Your task to perform on an android device: Open Yahoo.com Image 0: 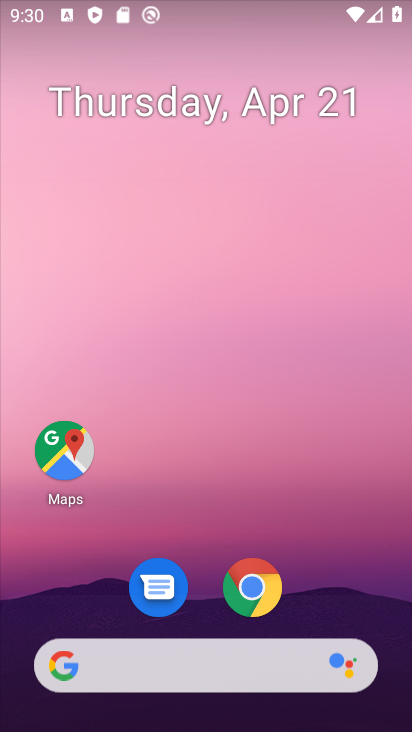
Step 0: click (250, 587)
Your task to perform on an android device: Open Yahoo.com Image 1: 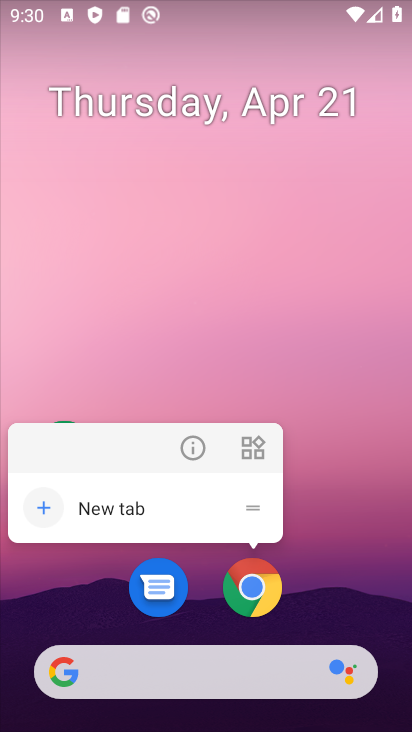
Step 1: click (188, 452)
Your task to perform on an android device: Open Yahoo.com Image 2: 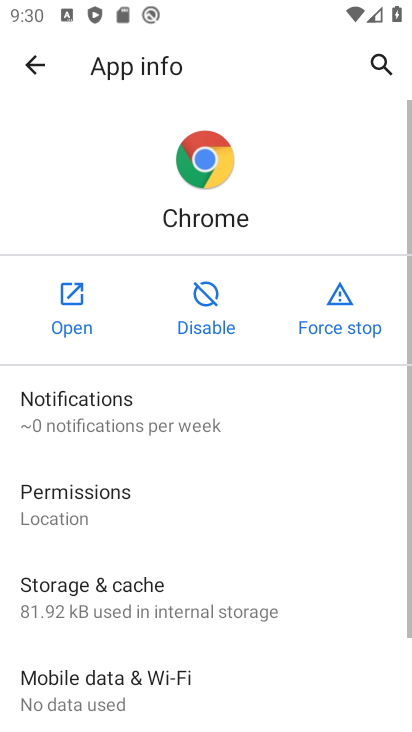
Step 2: click (72, 296)
Your task to perform on an android device: Open Yahoo.com Image 3: 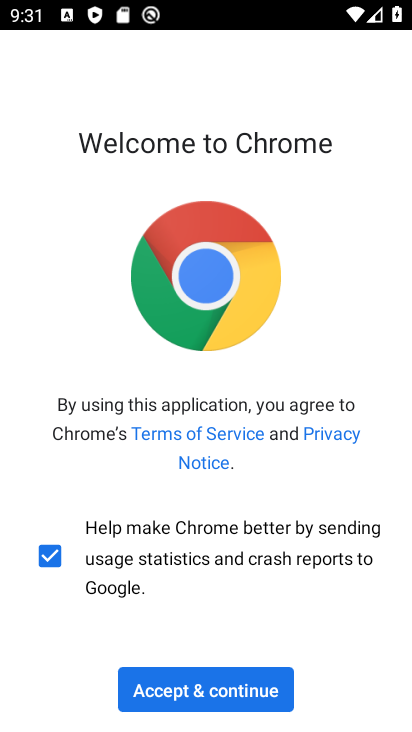
Step 3: click (167, 684)
Your task to perform on an android device: Open Yahoo.com Image 4: 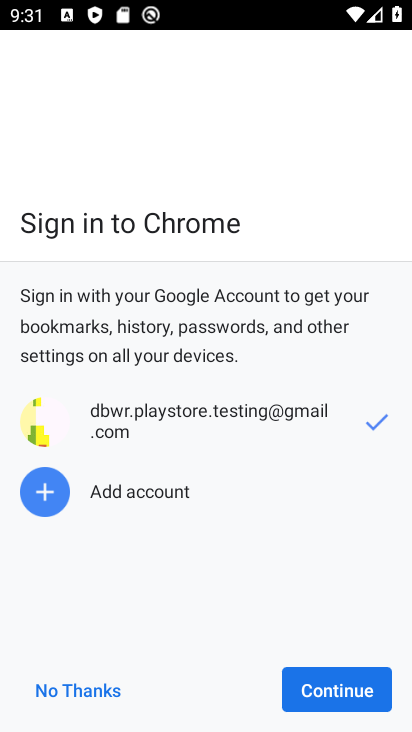
Step 4: click (93, 688)
Your task to perform on an android device: Open Yahoo.com Image 5: 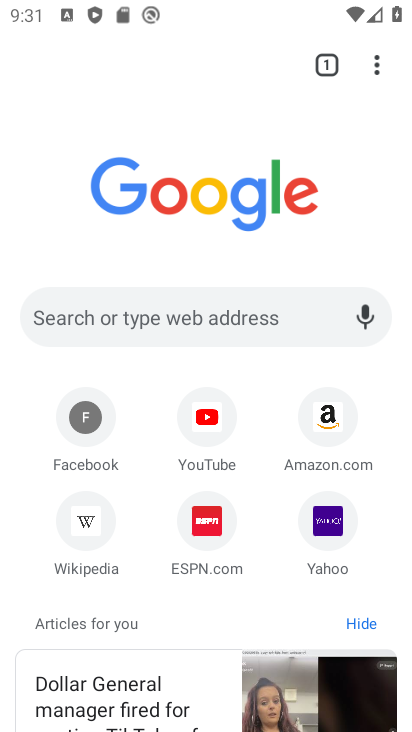
Step 5: click (319, 529)
Your task to perform on an android device: Open Yahoo.com Image 6: 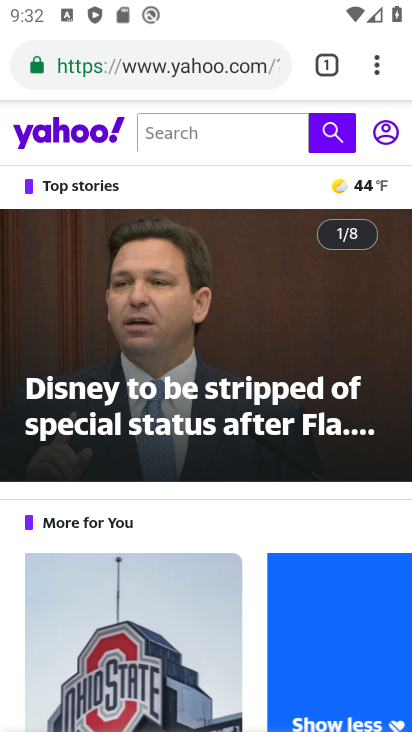
Step 6: task complete